Your task to perform on an android device: What's the weather going to be this weekend? Image 0: 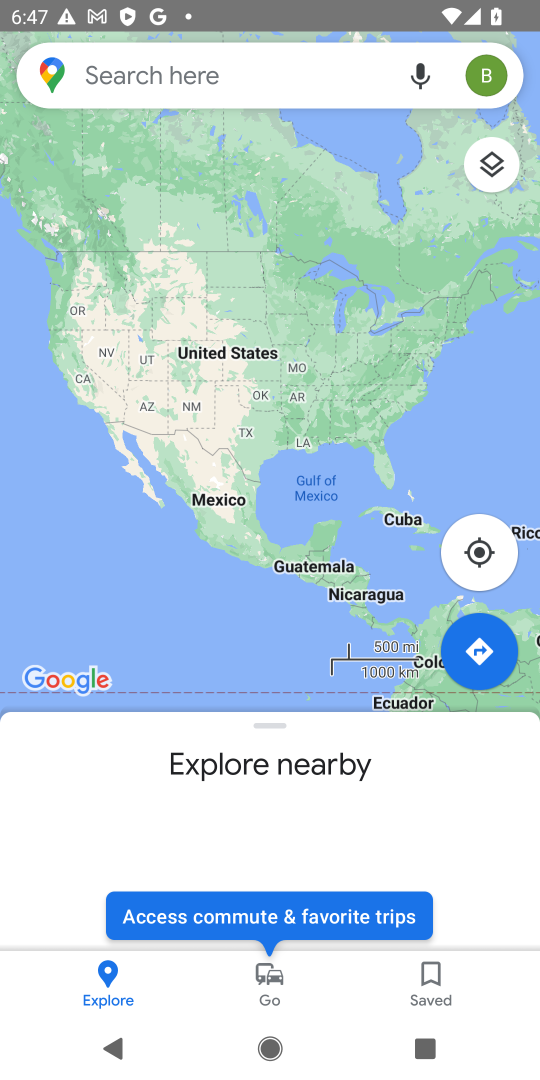
Step 0: press home button
Your task to perform on an android device: What's the weather going to be this weekend? Image 1: 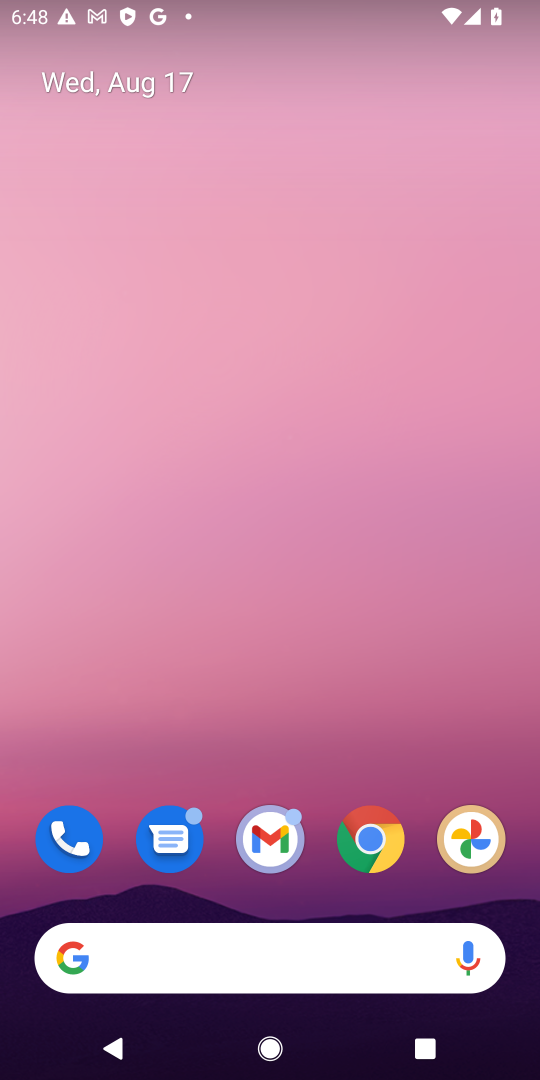
Step 1: click (191, 930)
Your task to perform on an android device: What's the weather going to be this weekend? Image 2: 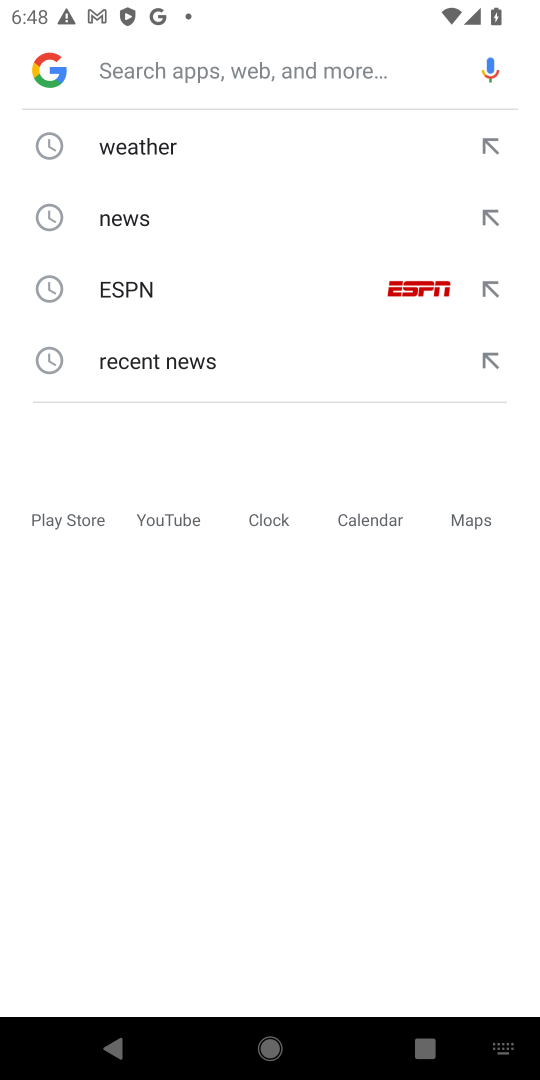
Step 2: click (128, 164)
Your task to perform on an android device: What's the weather going to be this weekend? Image 3: 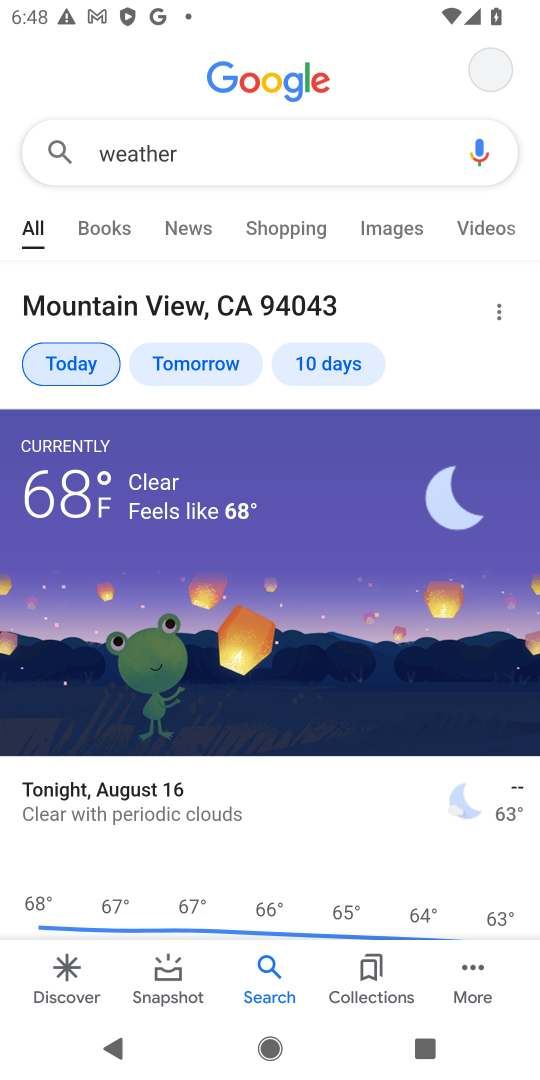
Step 3: click (362, 359)
Your task to perform on an android device: What's the weather going to be this weekend? Image 4: 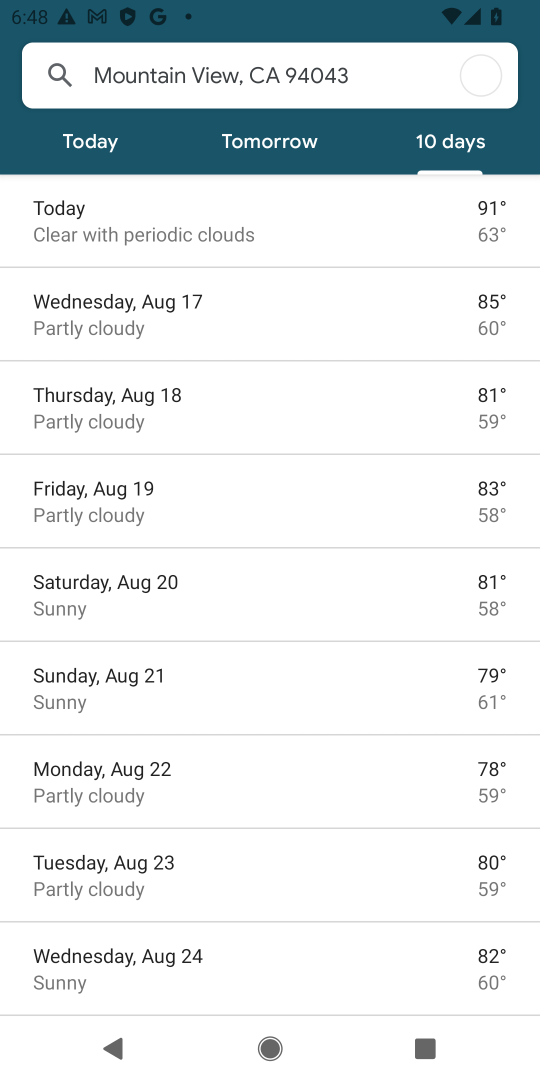
Step 4: task complete